Your task to perform on an android device: What is the recent news? Image 0: 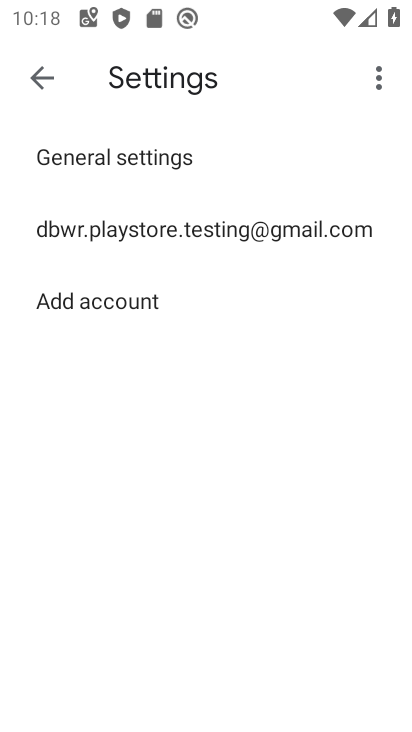
Step 0: press home button
Your task to perform on an android device: What is the recent news? Image 1: 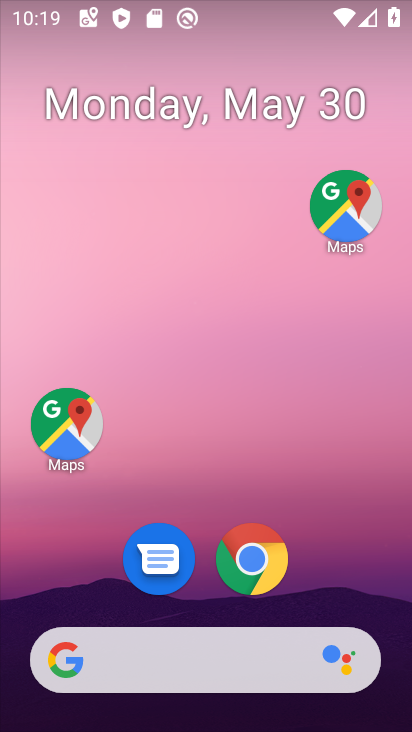
Step 1: click (254, 571)
Your task to perform on an android device: What is the recent news? Image 2: 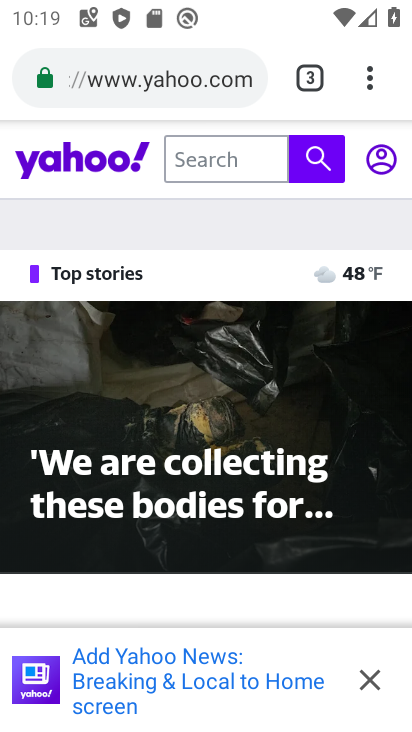
Step 2: click (192, 89)
Your task to perform on an android device: What is the recent news? Image 3: 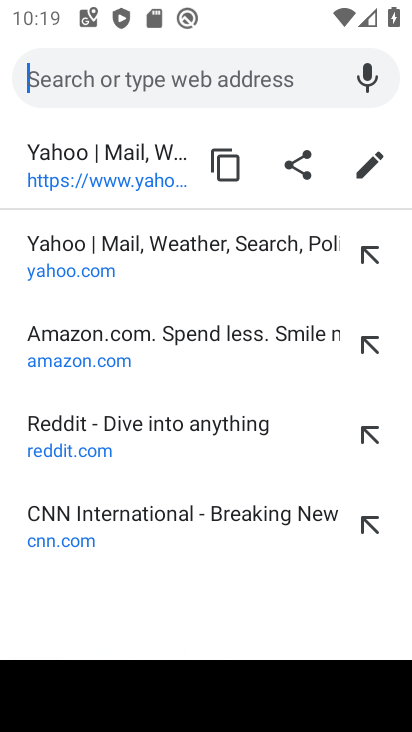
Step 3: type "news"
Your task to perform on an android device: What is the recent news? Image 4: 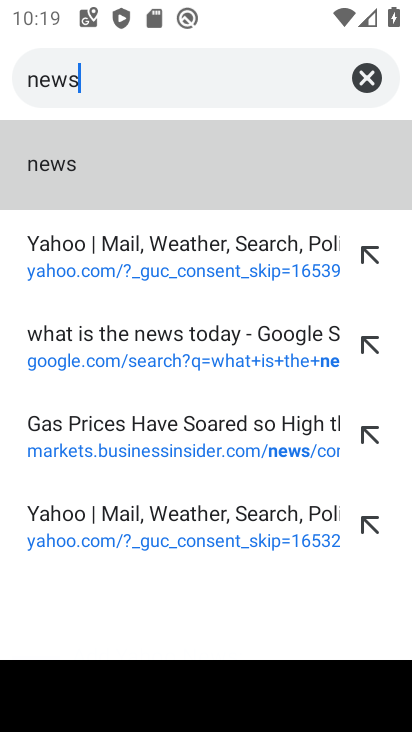
Step 4: click (87, 166)
Your task to perform on an android device: What is the recent news? Image 5: 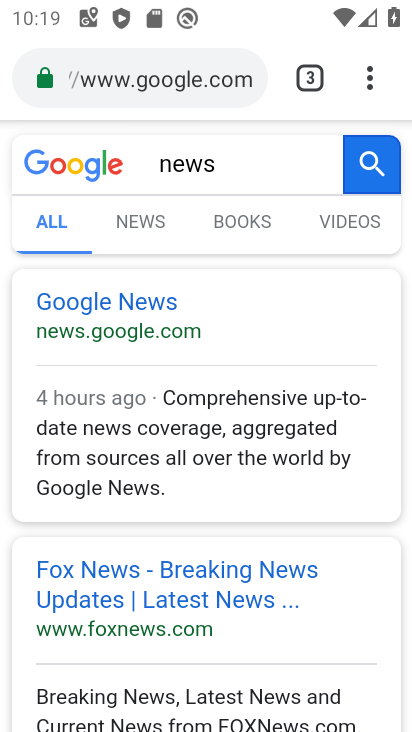
Step 5: click (144, 226)
Your task to perform on an android device: What is the recent news? Image 6: 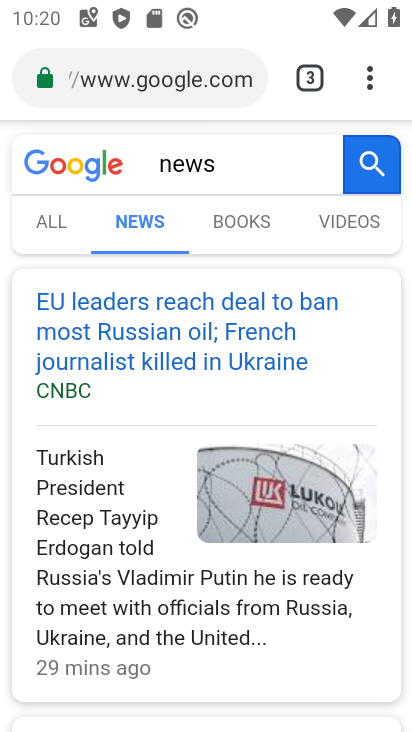
Step 6: click (285, 217)
Your task to perform on an android device: What is the recent news? Image 7: 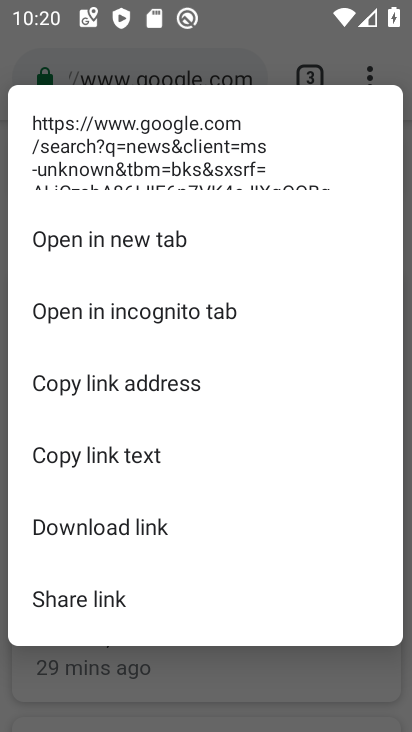
Step 7: click (262, 695)
Your task to perform on an android device: What is the recent news? Image 8: 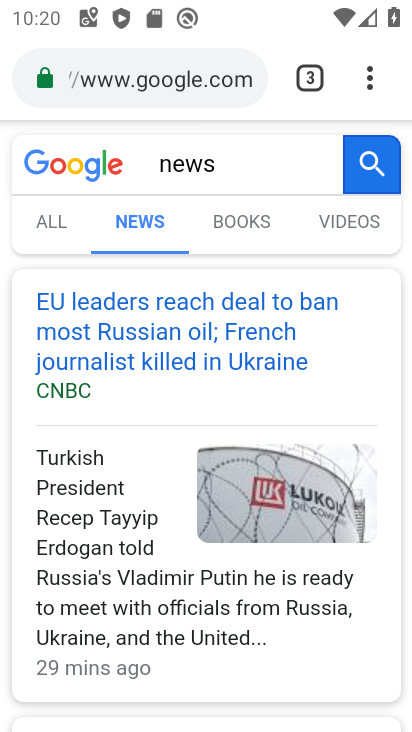
Step 8: task complete